Your task to perform on an android device: Open settings Image 0: 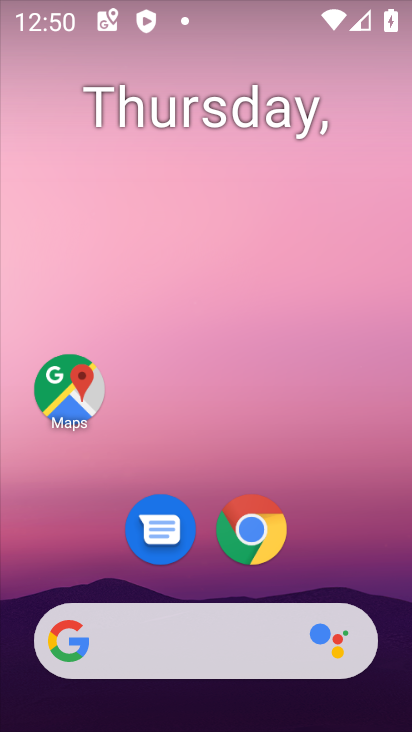
Step 0: drag from (232, 722) to (234, 164)
Your task to perform on an android device: Open settings Image 1: 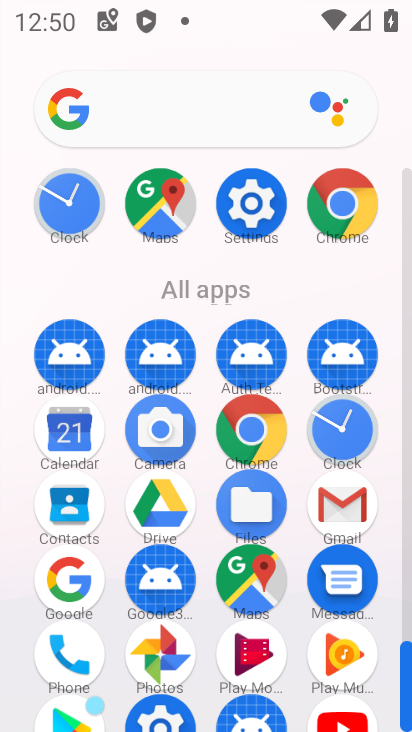
Step 1: click (258, 201)
Your task to perform on an android device: Open settings Image 2: 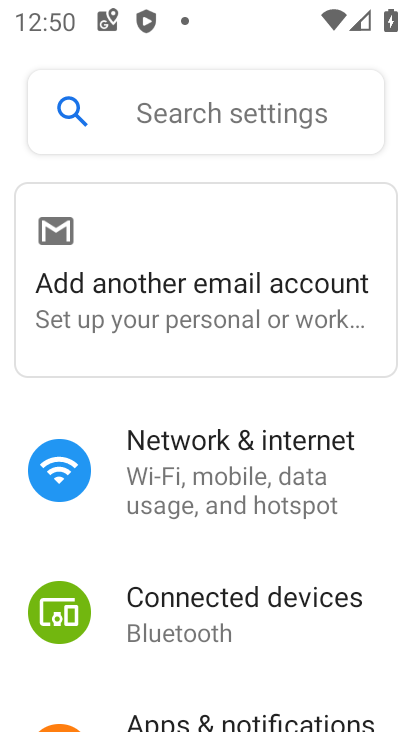
Step 2: task complete